Your task to perform on an android device: toggle priority inbox in the gmail app Image 0: 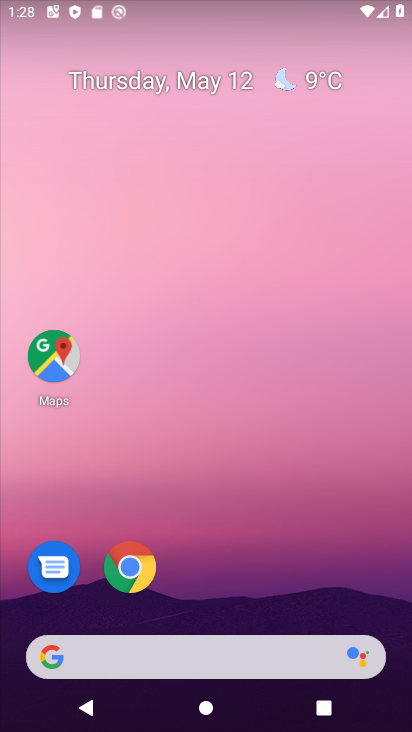
Step 0: press home button
Your task to perform on an android device: toggle priority inbox in the gmail app Image 1: 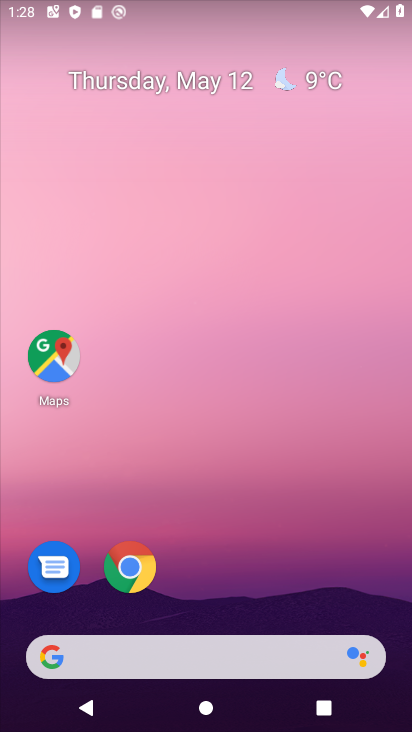
Step 1: drag from (211, 615) to (221, 92)
Your task to perform on an android device: toggle priority inbox in the gmail app Image 2: 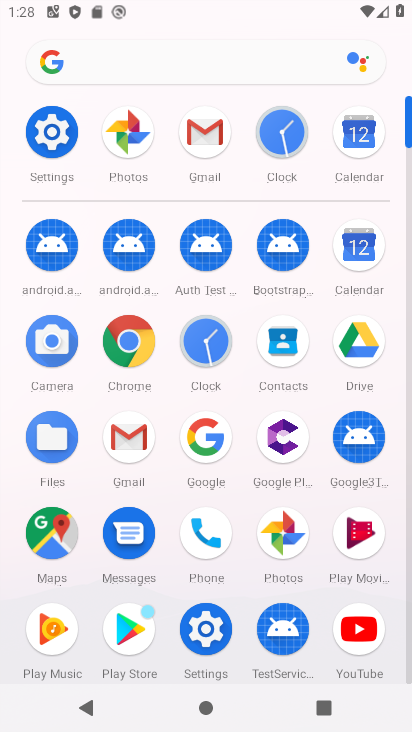
Step 2: click (127, 428)
Your task to perform on an android device: toggle priority inbox in the gmail app Image 3: 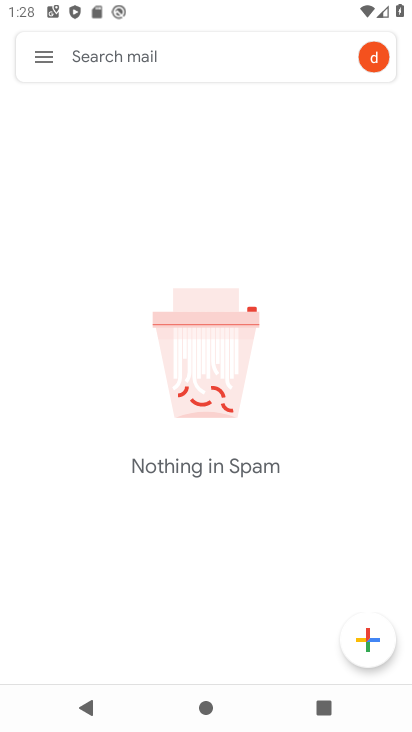
Step 3: click (42, 55)
Your task to perform on an android device: toggle priority inbox in the gmail app Image 4: 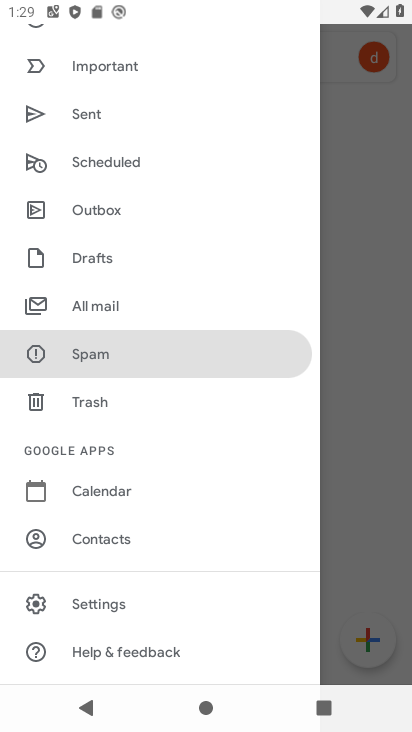
Step 4: click (131, 597)
Your task to perform on an android device: toggle priority inbox in the gmail app Image 5: 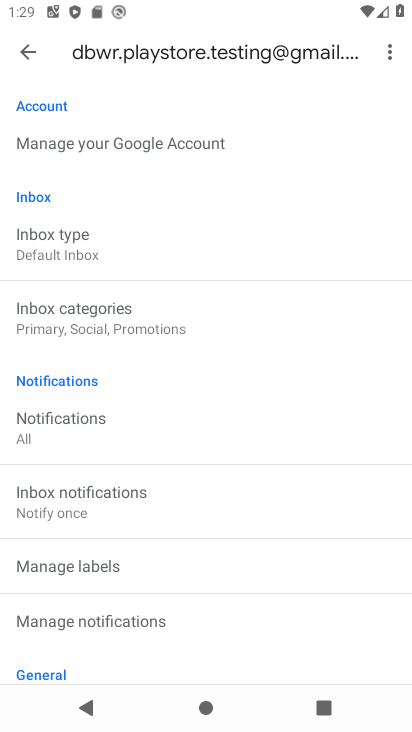
Step 5: click (87, 234)
Your task to perform on an android device: toggle priority inbox in the gmail app Image 6: 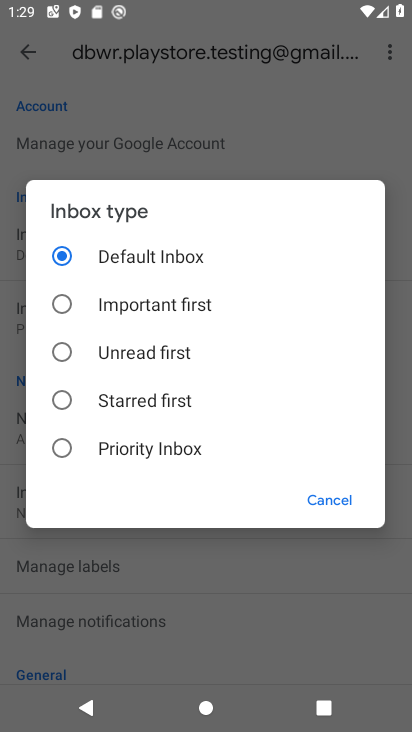
Step 6: click (55, 442)
Your task to perform on an android device: toggle priority inbox in the gmail app Image 7: 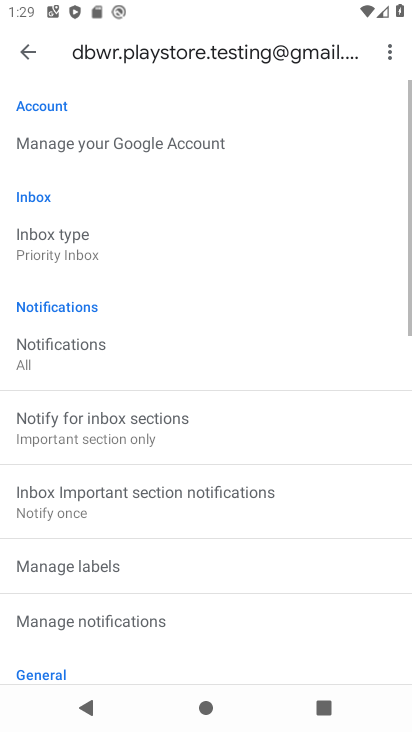
Step 7: task complete